Your task to perform on an android device: stop showing notifications on the lock screen Image 0: 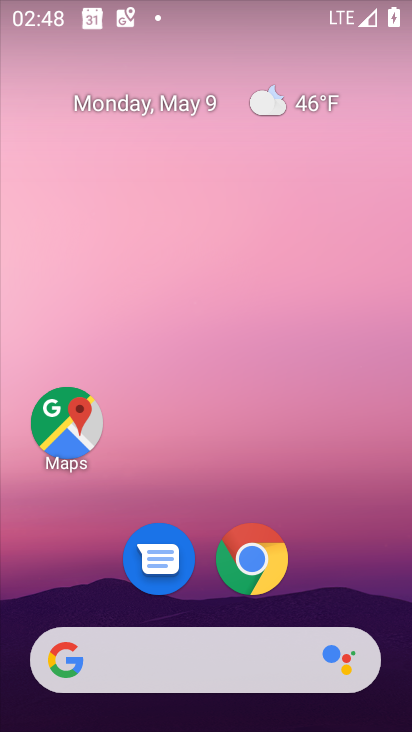
Step 0: drag from (208, 460) to (194, 11)
Your task to perform on an android device: stop showing notifications on the lock screen Image 1: 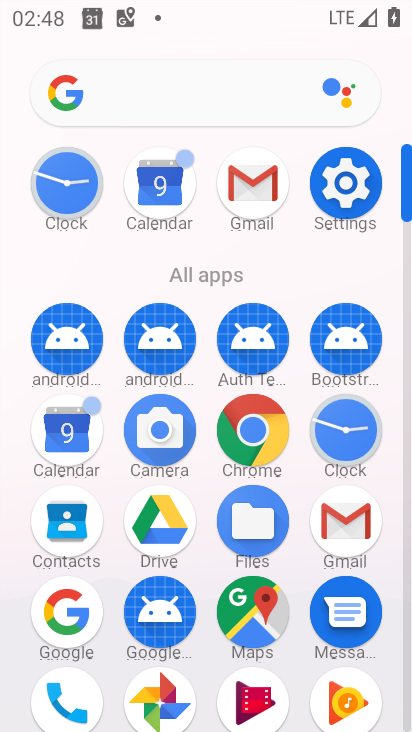
Step 1: click (343, 181)
Your task to perform on an android device: stop showing notifications on the lock screen Image 2: 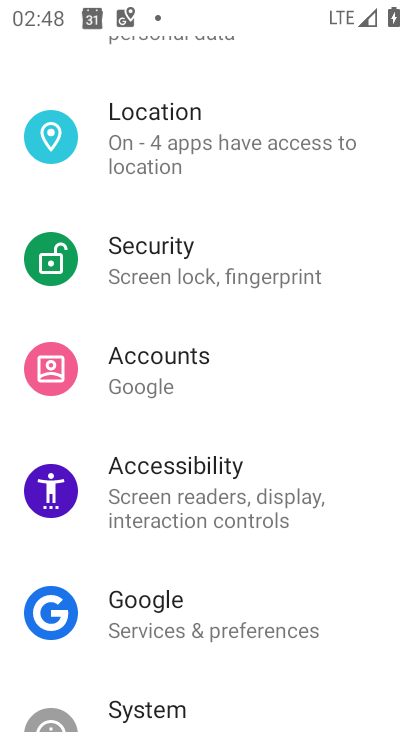
Step 2: drag from (264, 213) to (292, 336)
Your task to perform on an android device: stop showing notifications on the lock screen Image 3: 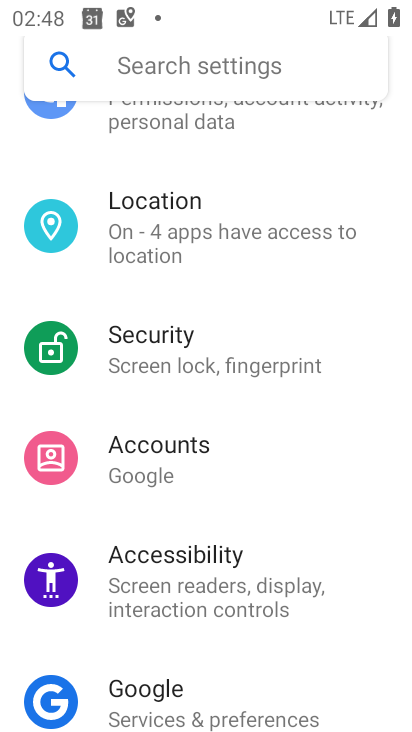
Step 3: drag from (208, 178) to (267, 353)
Your task to perform on an android device: stop showing notifications on the lock screen Image 4: 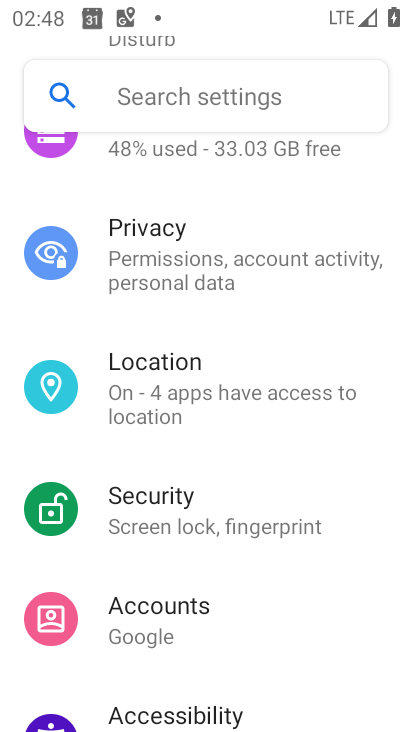
Step 4: drag from (182, 192) to (241, 340)
Your task to perform on an android device: stop showing notifications on the lock screen Image 5: 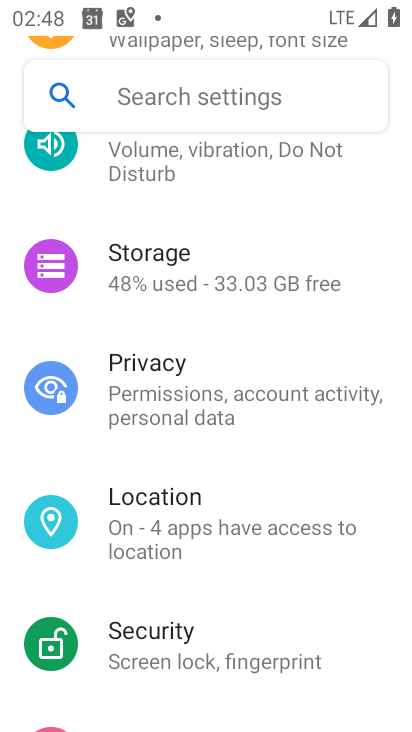
Step 5: drag from (178, 211) to (247, 364)
Your task to perform on an android device: stop showing notifications on the lock screen Image 6: 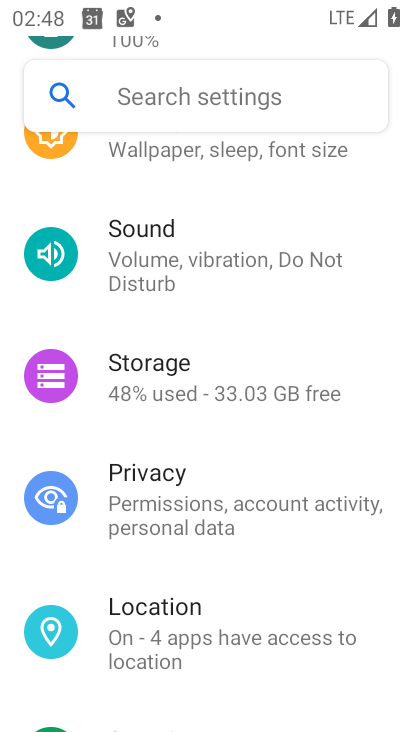
Step 6: drag from (201, 202) to (237, 381)
Your task to perform on an android device: stop showing notifications on the lock screen Image 7: 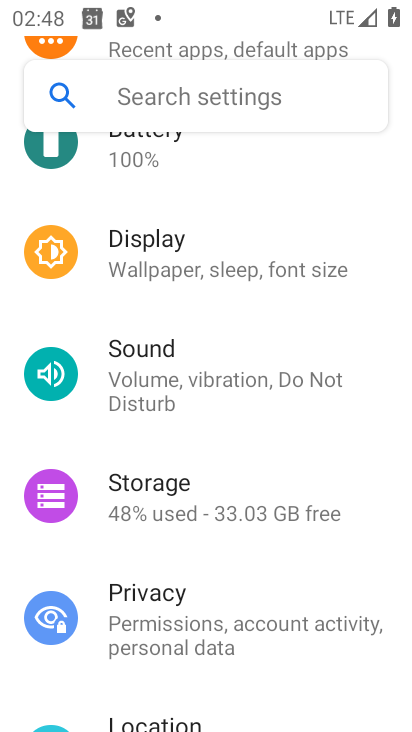
Step 7: drag from (214, 210) to (254, 380)
Your task to perform on an android device: stop showing notifications on the lock screen Image 8: 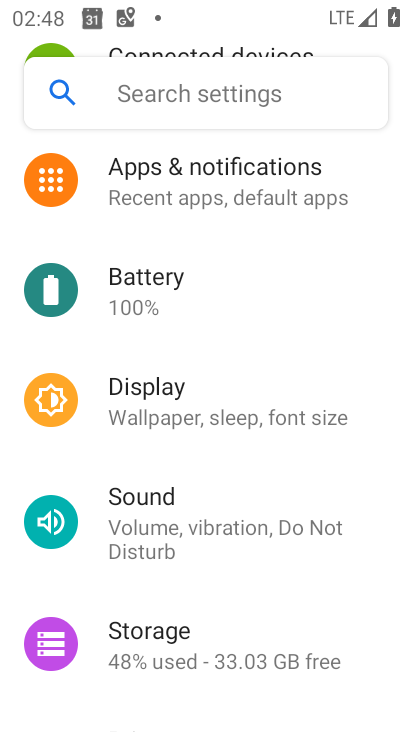
Step 8: click (231, 170)
Your task to perform on an android device: stop showing notifications on the lock screen Image 9: 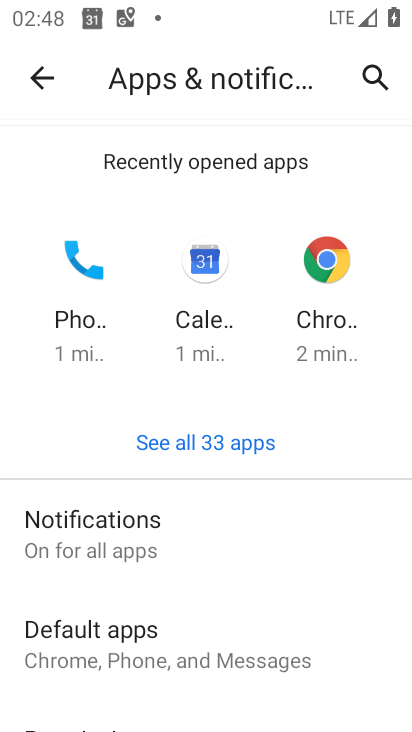
Step 9: click (118, 516)
Your task to perform on an android device: stop showing notifications on the lock screen Image 10: 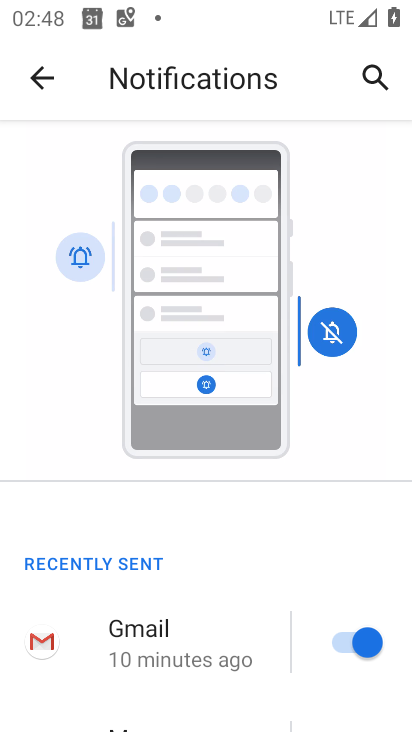
Step 10: drag from (194, 507) to (192, 209)
Your task to perform on an android device: stop showing notifications on the lock screen Image 11: 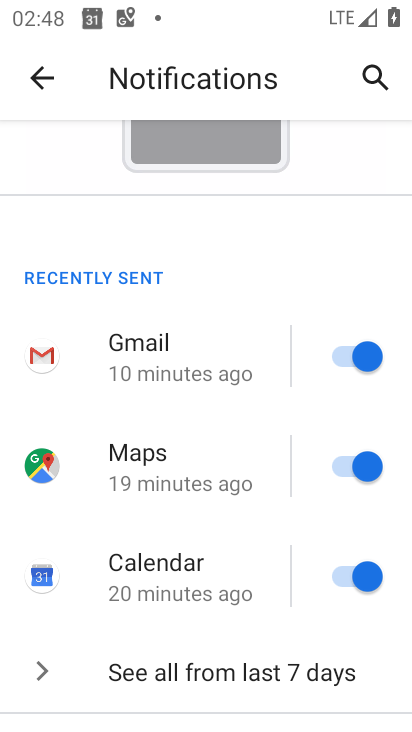
Step 11: drag from (162, 520) to (247, 287)
Your task to perform on an android device: stop showing notifications on the lock screen Image 12: 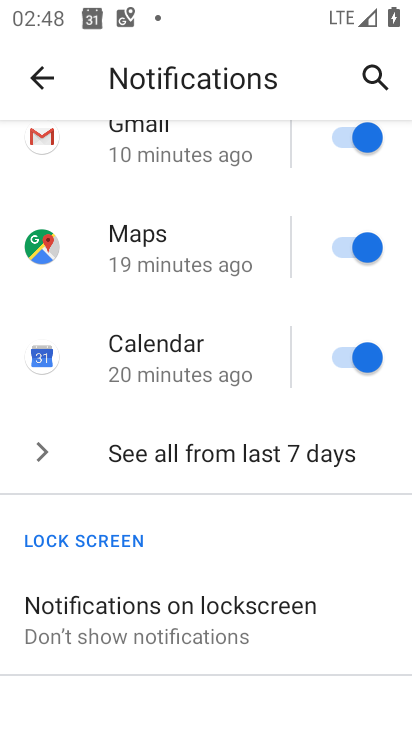
Step 12: drag from (197, 542) to (221, 381)
Your task to perform on an android device: stop showing notifications on the lock screen Image 13: 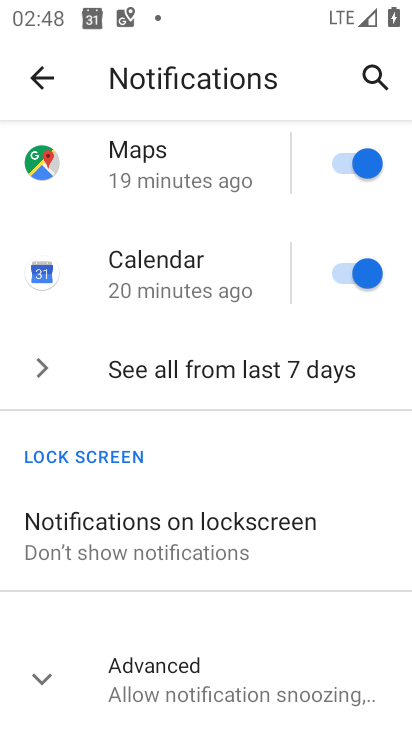
Step 13: click (183, 513)
Your task to perform on an android device: stop showing notifications on the lock screen Image 14: 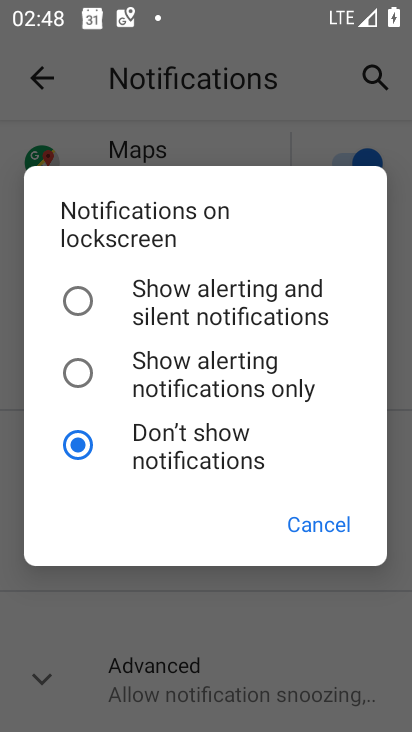
Step 14: click (79, 432)
Your task to perform on an android device: stop showing notifications on the lock screen Image 15: 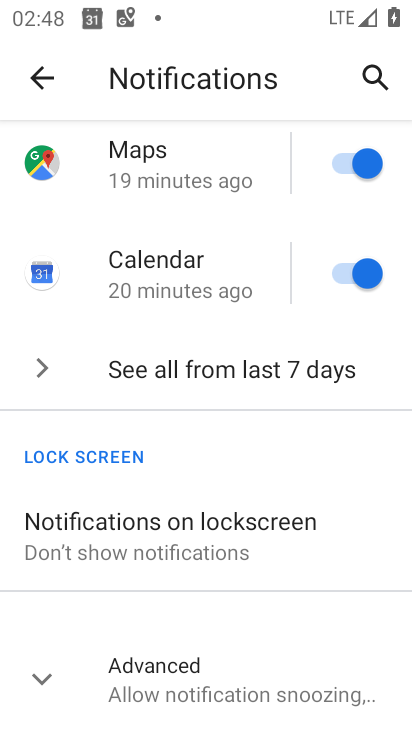
Step 15: task complete